Your task to perform on an android device: Open Android settings Image 0: 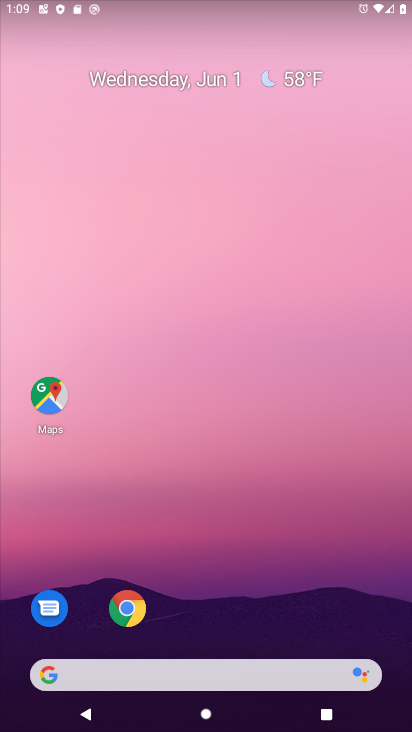
Step 0: drag from (312, 566) to (394, 86)
Your task to perform on an android device: Open Android settings Image 1: 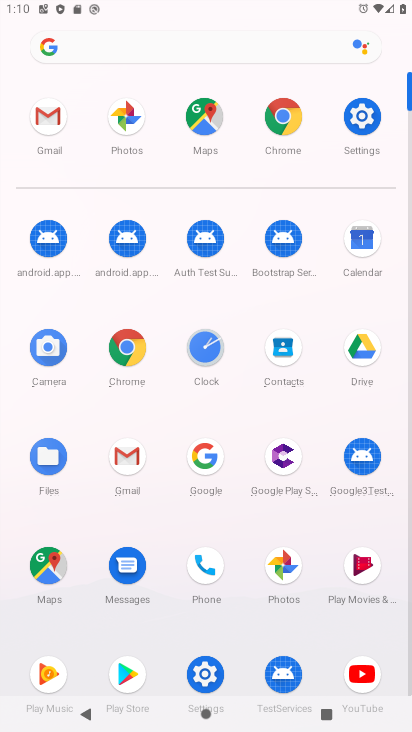
Step 1: click (369, 111)
Your task to perform on an android device: Open Android settings Image 2: 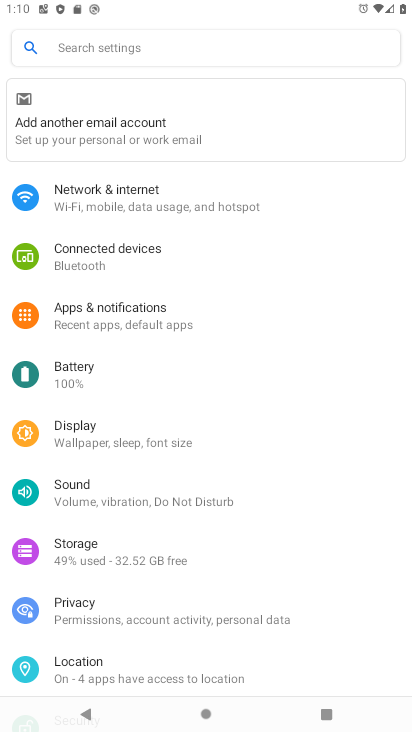
Step 2: task complete